Your task to perform on an android device: Open calendar and show me the fourth week of next month Image 0: 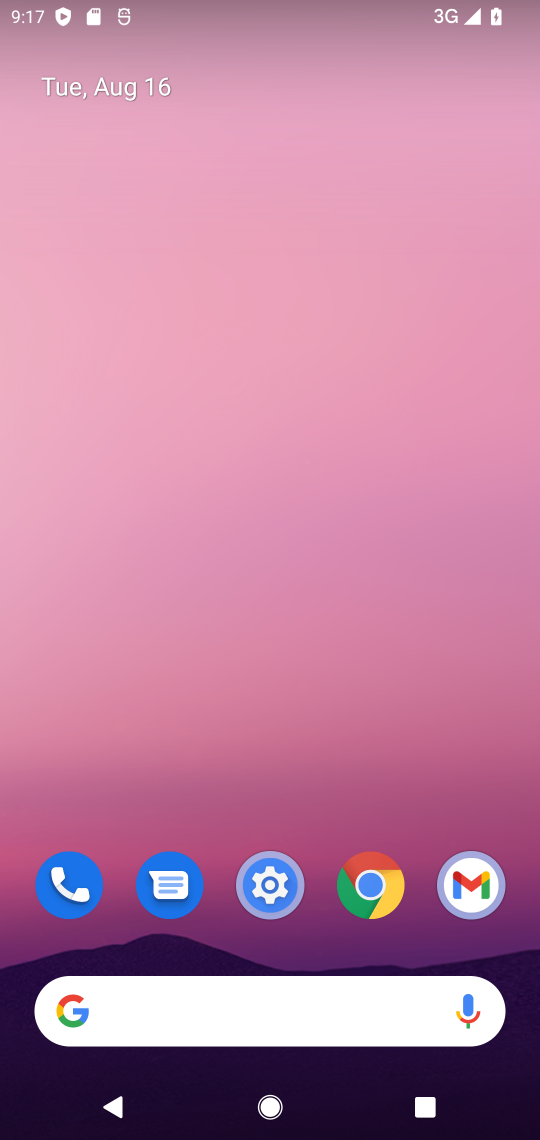
Step 0: drag from (262, 934) to (266, 145)
Your task to perform on an android device: Open calendar and show me the fourth week of next month Image 1: 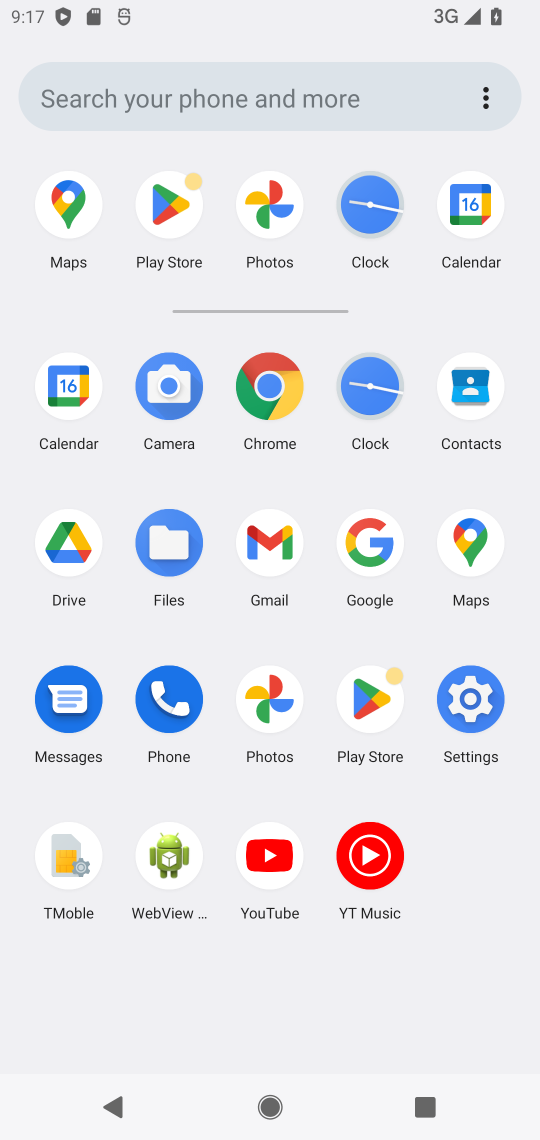
Step 1: click (63, 386)
Your task to perform on an android device: Open calendar and show me the fourth week of next month Image 2: 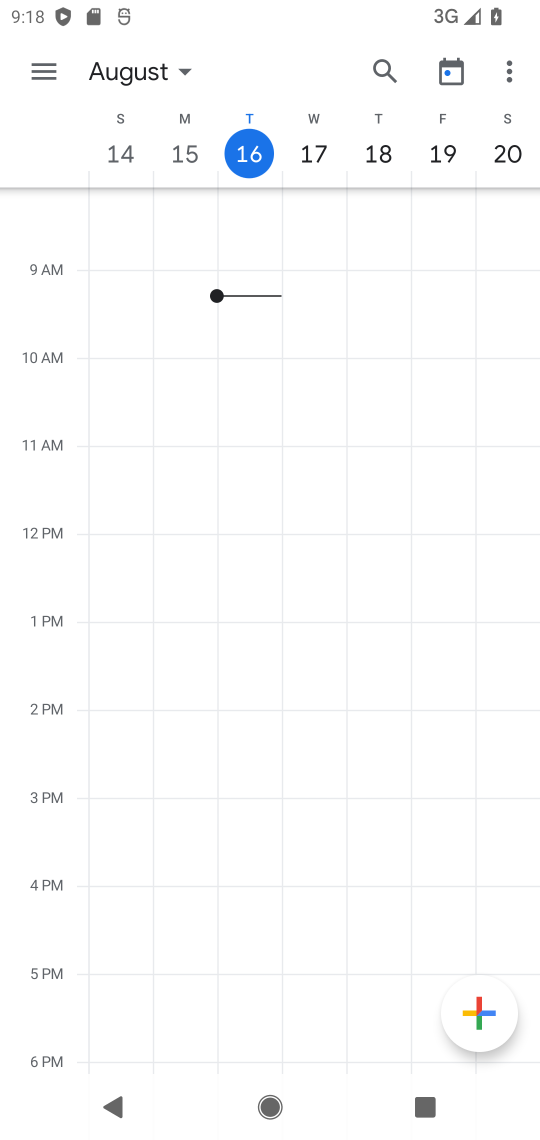
Step 2: click (129, 84)
Your task to perform on an android device: Open calendar and show me the fourth week of next month Image 3: 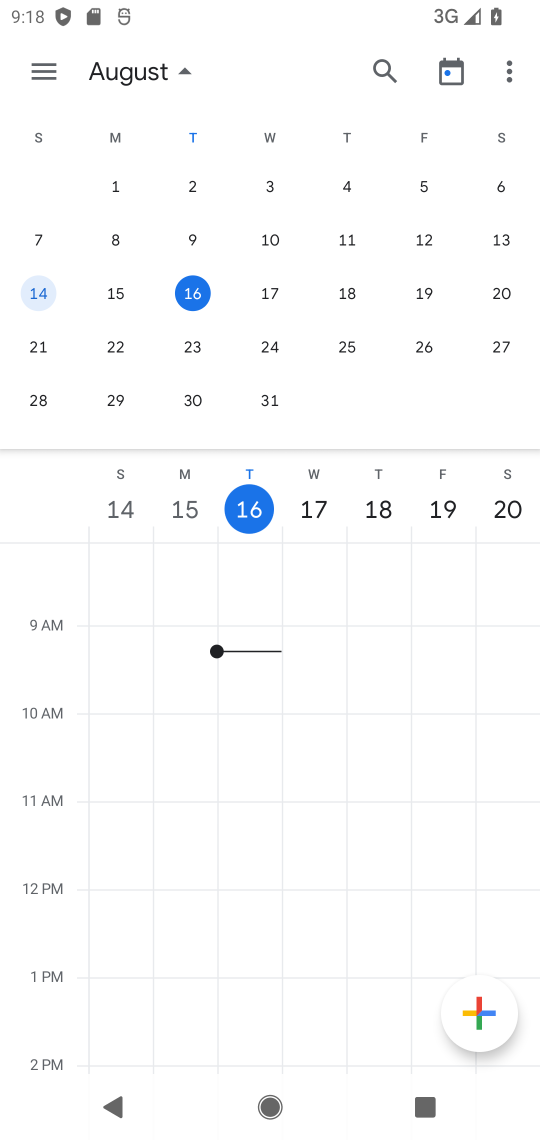
Step 3: click (37, 353)
Your task to perform on an android device: Open calendar and show me the fourth week of next month Image 4: 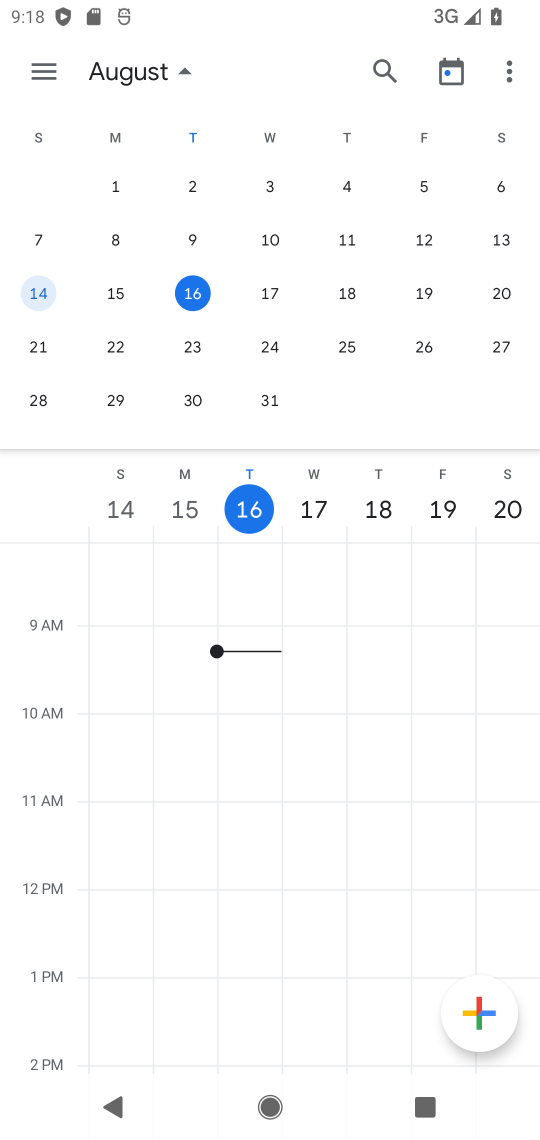
Step 4: click (37, 353)
Your task to perform on an android device: Open calendar and show me the fourth week of next month Image 5: 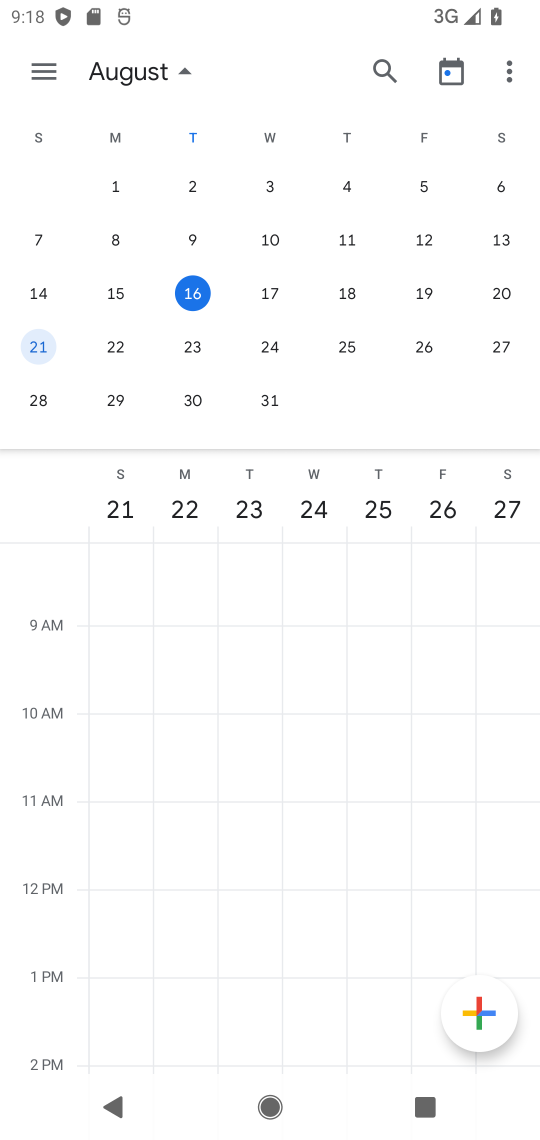
Step 5: task complete